Your task to perform on an android device: remove spam from my inbox in the gmail app Image 0: 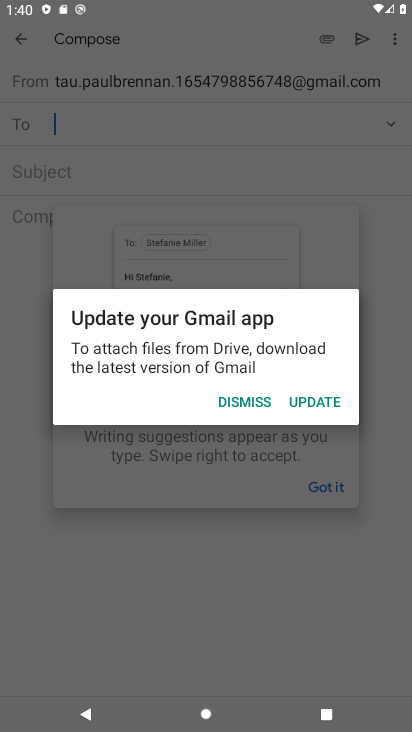
Step 0: click (245, 403)
Your task to perform on an android device: remove spam from my inbox in the gmail app Image 1: 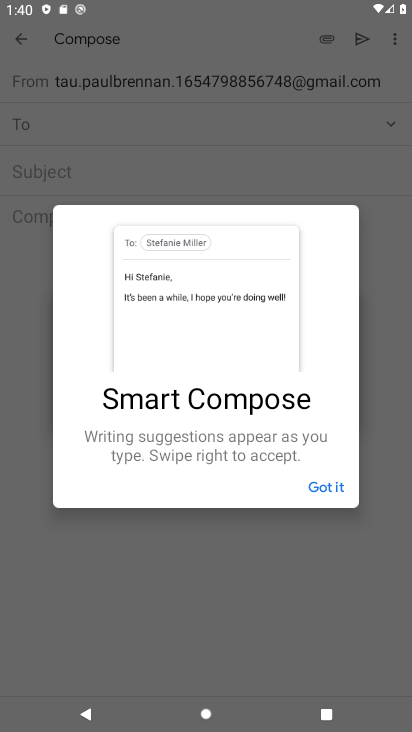
Step 1: click (332, 492)
Your task to perform on an android device: remove spam from my inbox in the gmail app Image 2: 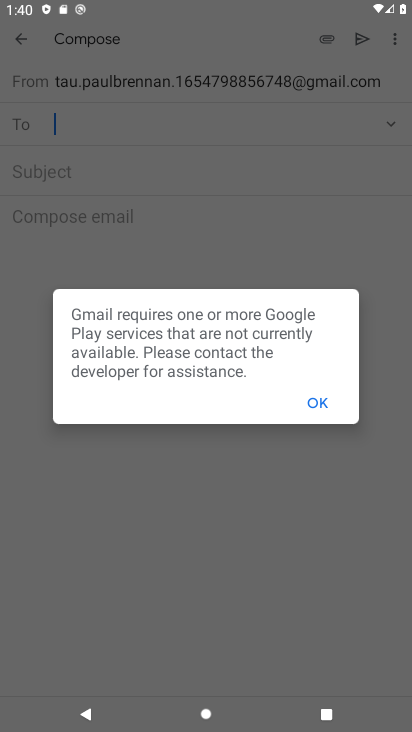
Step 2: click (317, 405)
Your task to perform on an android device: remove spam from my inbox in the gmail app Image 3: 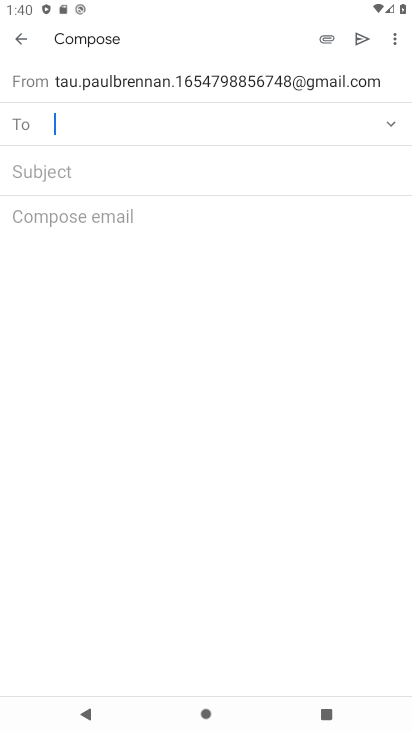
Step 3: click (23, 47)
Your task to perform on an android device: remove spam from my inbox in the gmail app Image 4: 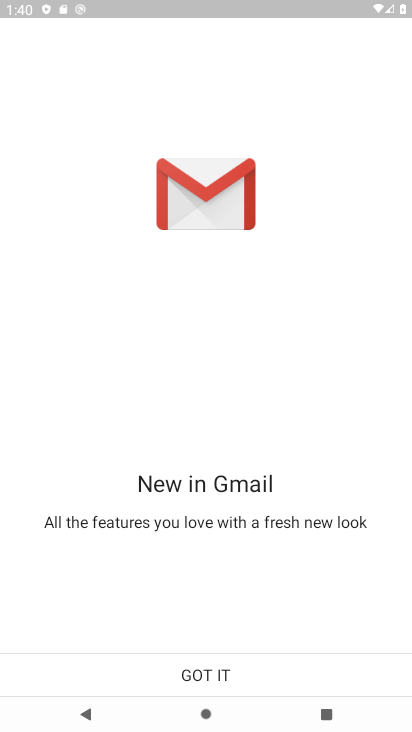
Step 4: click (200, 677)
Your task to perform on an android device: remove spam from my inbox in the gmail app Image 5: 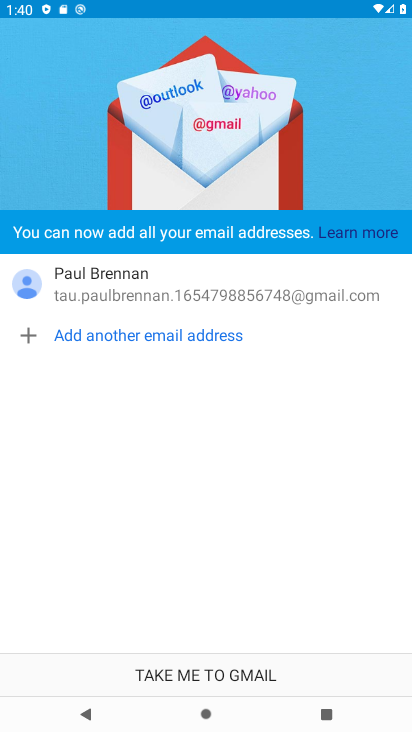
Step 5: click (183, 665)
Your task to perform on an android device: remove spam from my inbox in the gmail app Image 6: 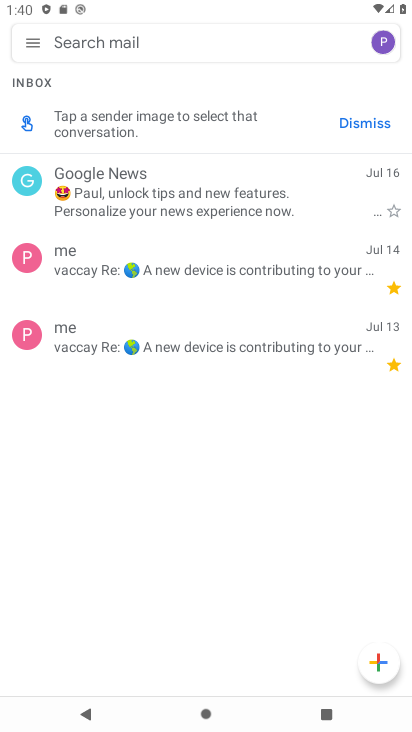
Step 6: click (36, 50)
Your task to perform on an android device: remove spam from my inbox in the gmail app Image 7: 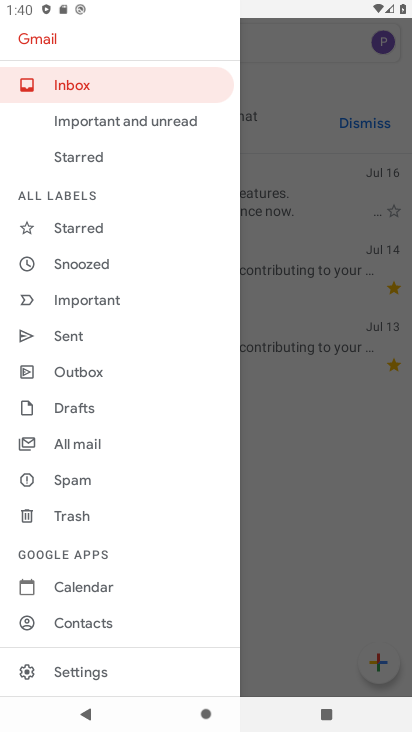
Step 7: click (90, 469)
Your task to perform on an android device: remove spam from my inbox in the gmail app Image 8: 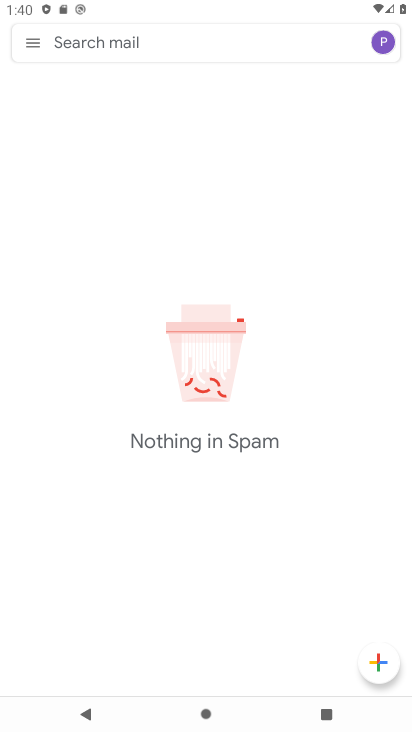
Step 8: task complete